Your task to perform on an android device: toggle javascript in the chrome app Image 0: 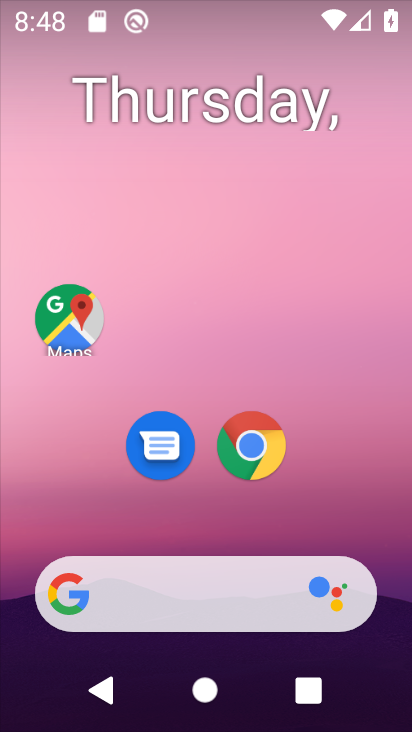
Step 0: click (261, 442)
Your task to perform on an android device: toggle javascript in the chrome app Image 1: 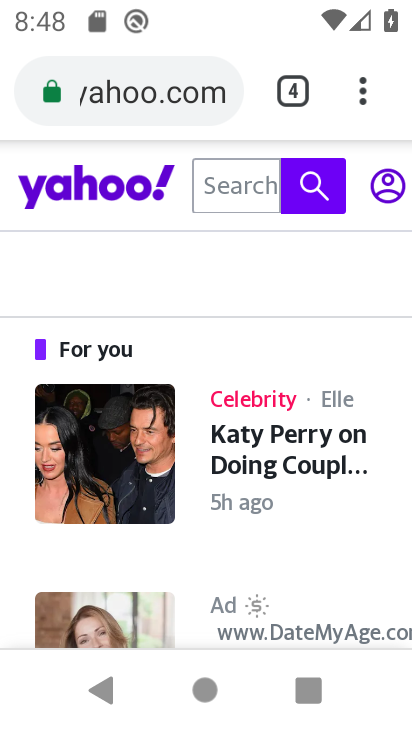
Step 1: drag from (366, 89) to (109, 470)
Your task to perform on an android device: toggle javascript in the chrome app Image 2: 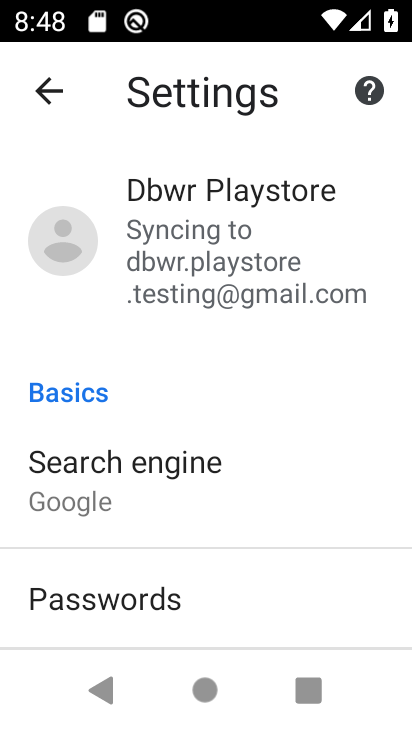
Step 2: drag from (253, 609) to (220, 299)
Your task to perform on an android device: toggle javascript in the chrome app Image 3: 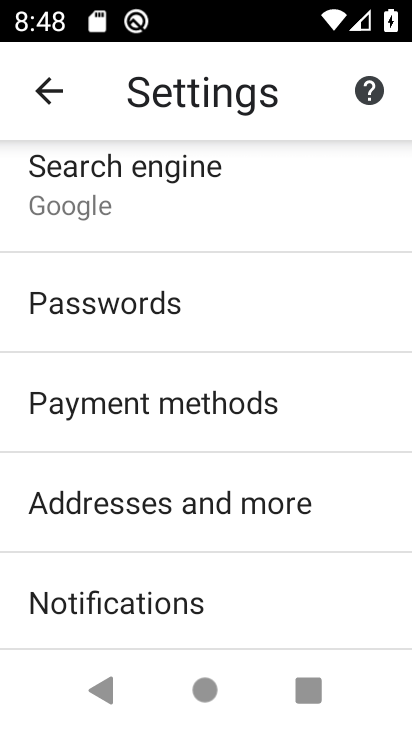
Step 3: drag from (232, 573) to (250, 241)
Your task to perform on an android device: toggle javascript in the chrome app Image 4: 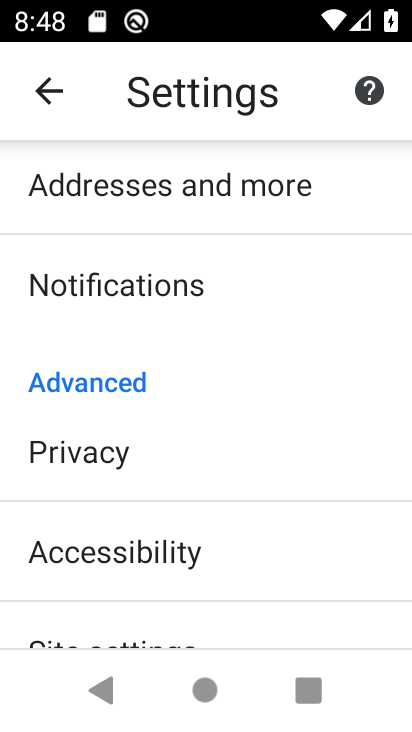
Step 4: drag from (145, 621) to (147, 467)
Your task to perform on an android device: toggle javascript in the chrome app Image 5: 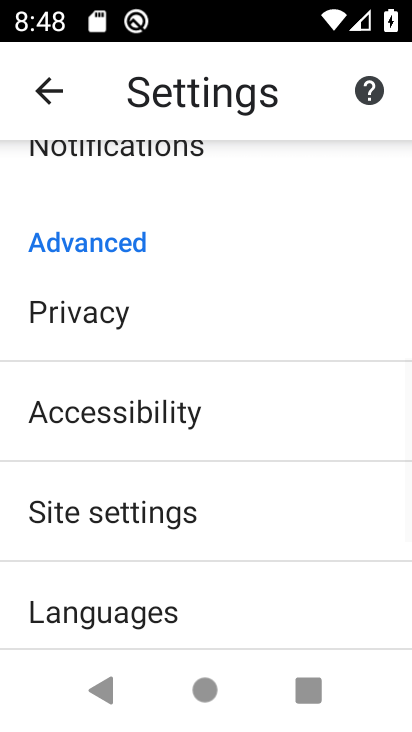
Step 5: click (142, 523)
Your task to perform on an android device: toggle javascript in the chrome app Image 6: 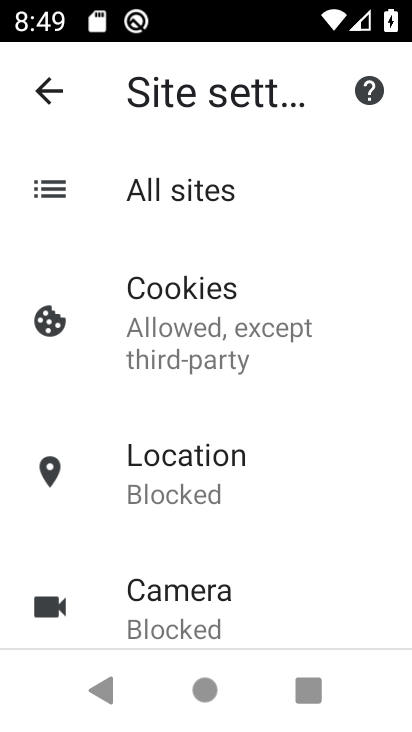
Step 6: drag from (236, 599) to (251, 237)
Your task to perform on an android device: toggle javascript in the chrome app Image 7: 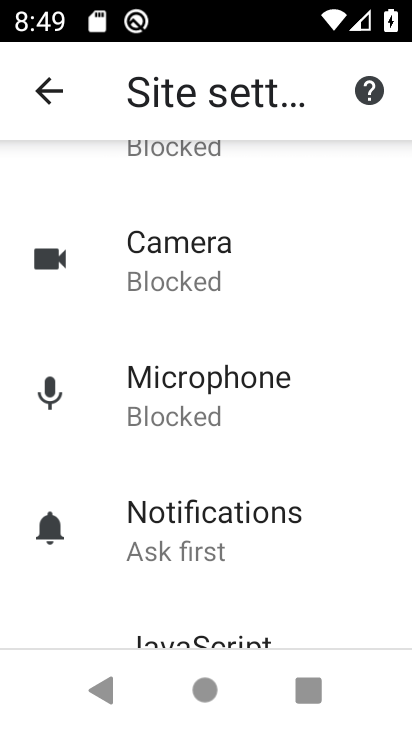
Step 7: drag from (224, 583) to (240, 367)
Your task to perform on an android device: toggle javascript in the chrome app Image 8: 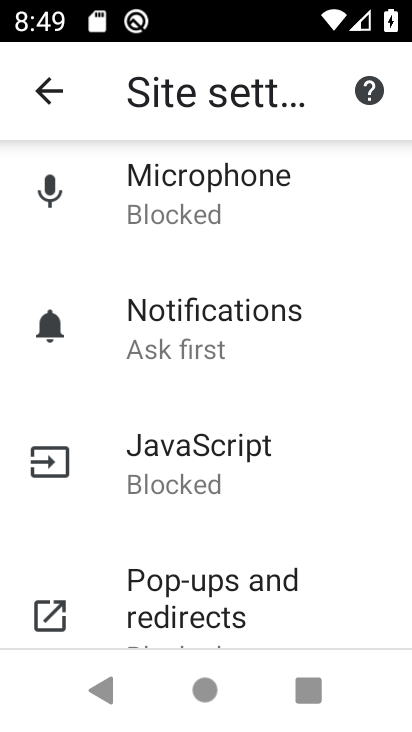
Step 8: click (195, 476)
Your task to perform on an android device: toggle javascript in the chrome app Image 9: 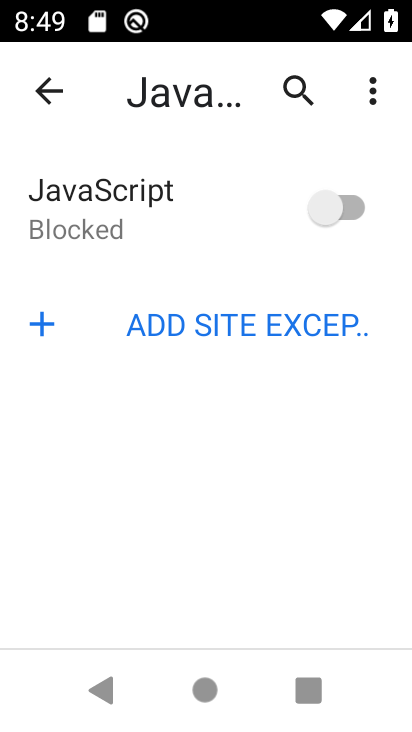
Step 9: click (339, 216)
Your task to perform on an android device: toggle javascript in the chrome app Image 10: 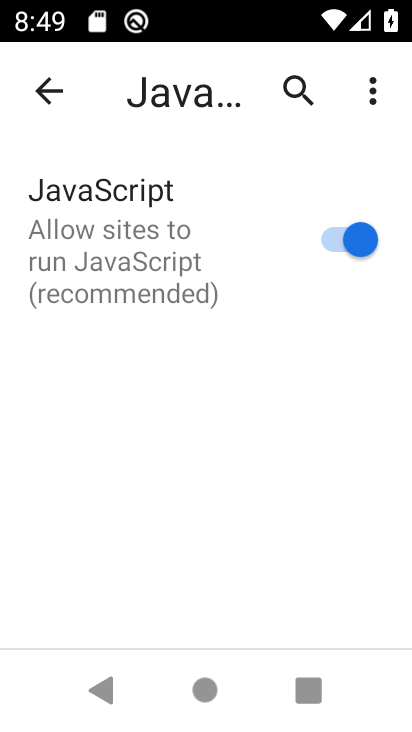
Step 10: task complete